Your task to perform on an android device: Search for sushi restaurants on Maps Image 0: 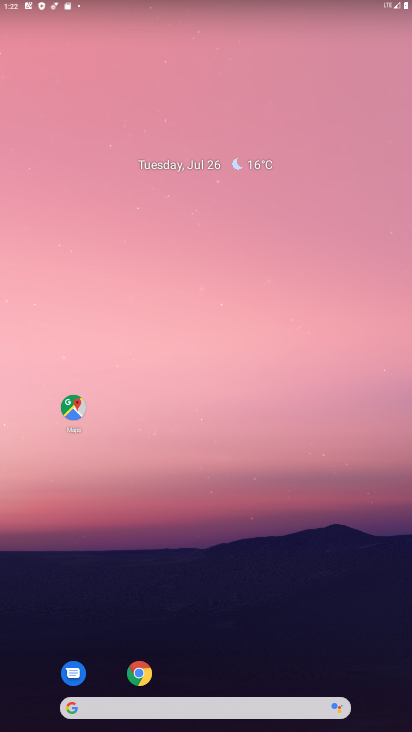
Step 0: drag from (194, 726) to (164, 218)
Your task to perform on an android device: Search for sushi restaurants on Maps Image 1: 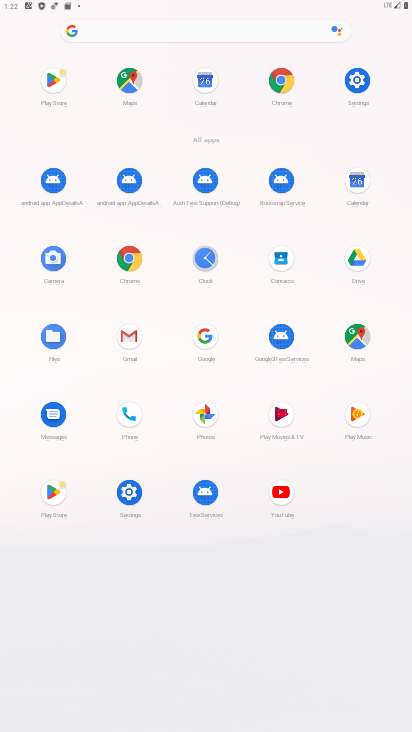
Step 1: click (355, 332)
Your task to perform on an android device: Search for sushi restaurants on Maps Image 2: 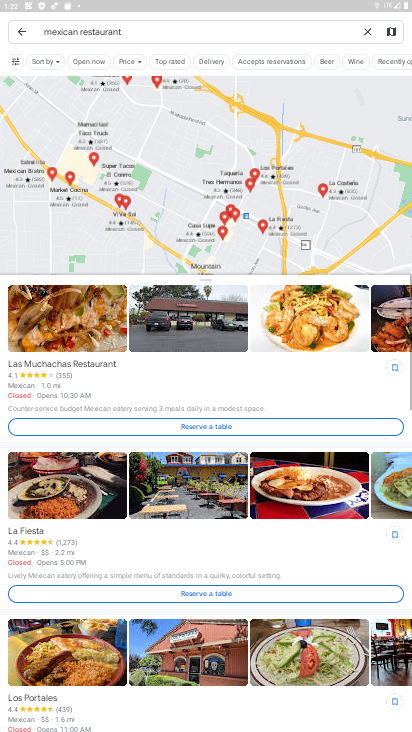
Step 2: click (364, 26)
Your task to perform on an android device: Search for sushi restaurants on Maps Image 3: 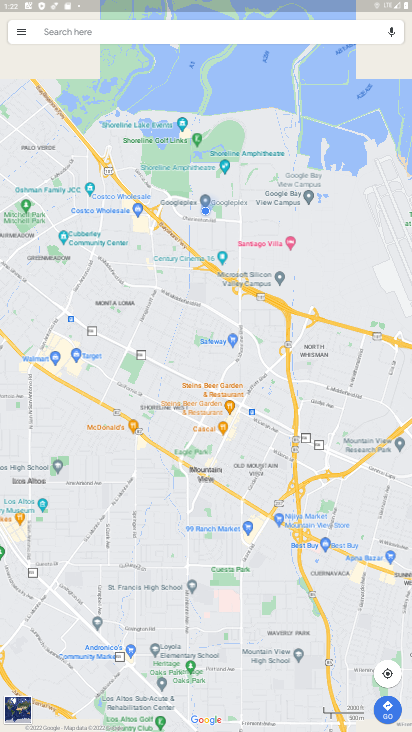
Step 3: click (141, 34)
Your task to perform on an android device: Search for sushi restaurants on Maps Image 4: 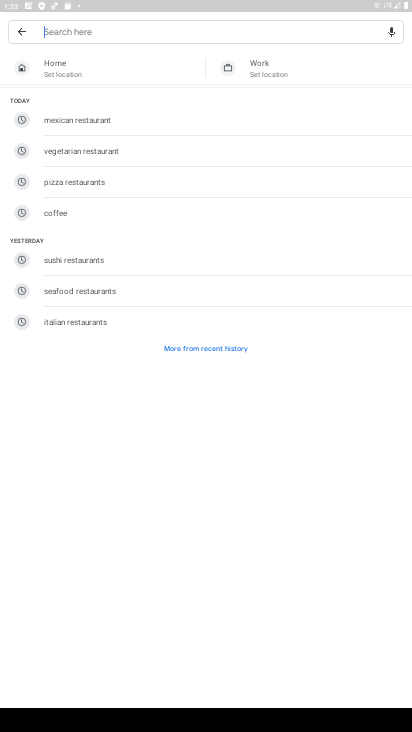
Step 4: type "Sushi restaurants"
Your task to perform on an android device: Search for sushi restaurants on Maps Image 5: 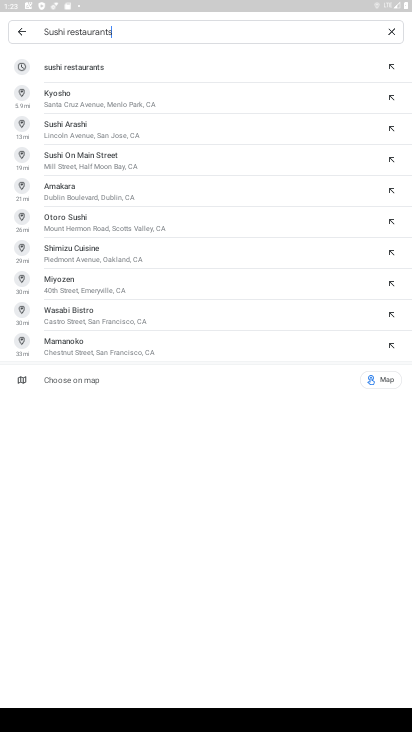
Step 5: click (81, 66)
Your task to perform on an android device: Search for sushi restaurants on Maps Image 6: 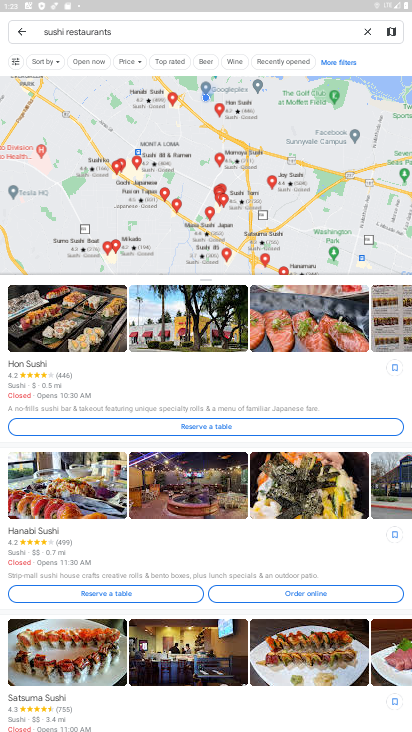
Step 6: task complete